Your task to perform on an android device: set the timer Image 0: 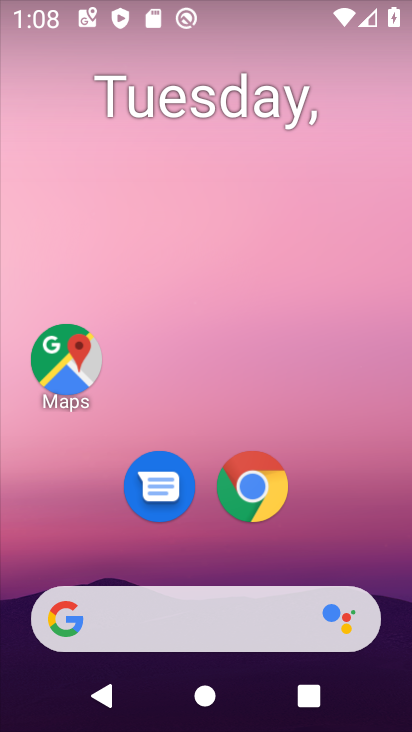
Step 0: drag from (377, 549) to (258, 114)
Your task to perform on an android device: set the timer Image 1: 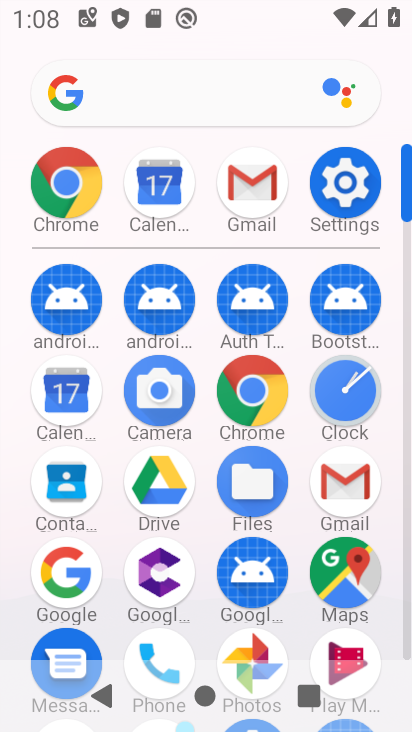
Step 1: click (361, 409)
Your task to perform on an android device: set the timer Image 2: 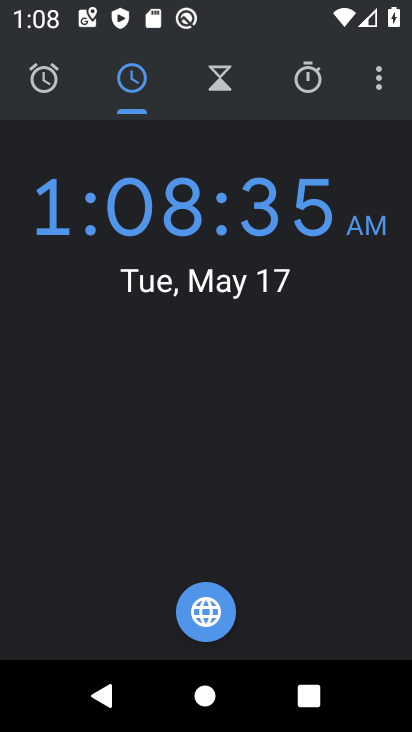
Step 2: click (233, 100)
Your task to perform on an android device: set the timer Image 3: 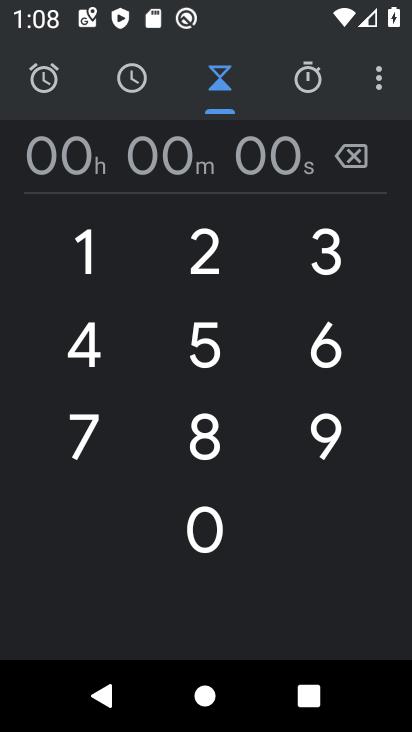
Step 3: type "5000000"
Your task to perform on an android device: set the timer Image 4: 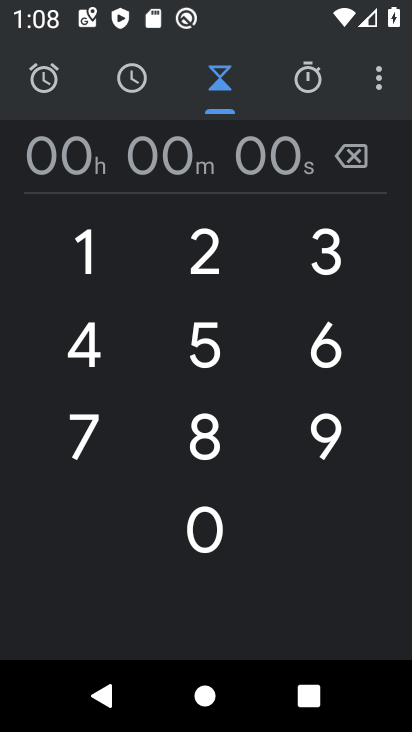
Step 4: click (359, 579)
Your task to perform on an android device: set the timer Image 5: 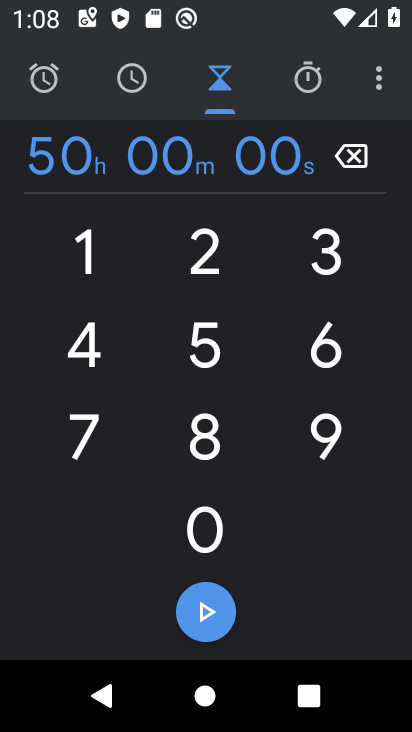
Step 5: click (213, 622)
Your task to perform on an android device: set the timer Image 6: 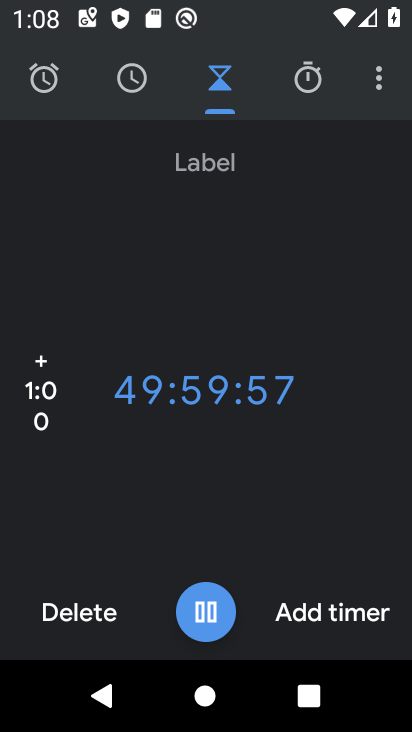
Step 6: task complete